Your task to perform on an android device: change timer sound Image 0: 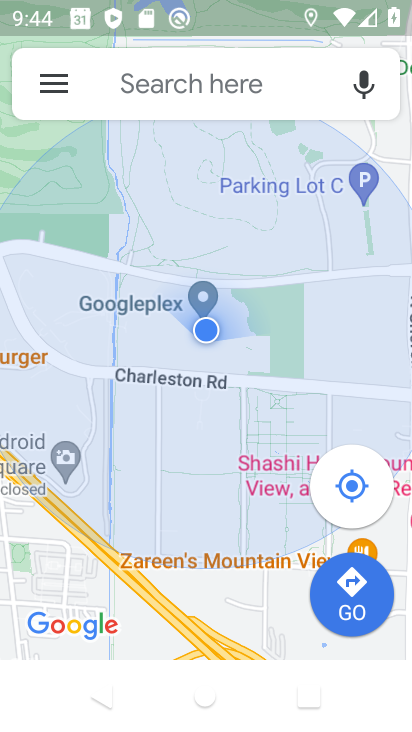
Step 0: press home button
Your task to perform on an android device: change timer sound Image 1: 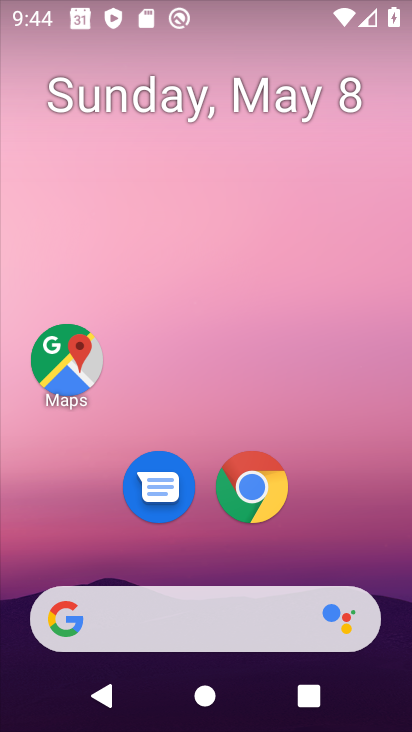
Step 1: drag from (363, 528) to (380, 132)
Your task to perform on an android device: change timer sound Image 2: 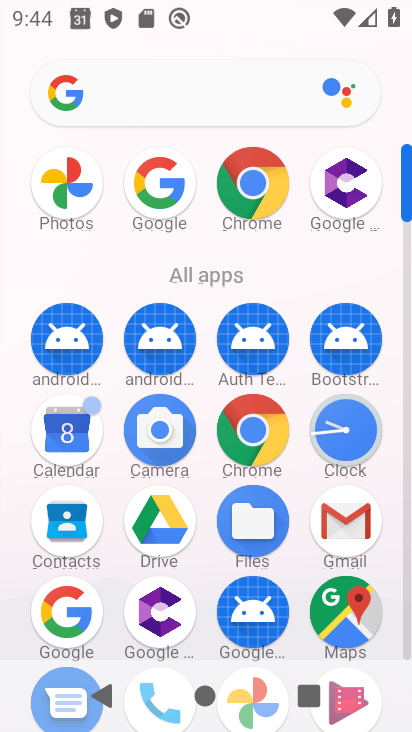
Step 2: click (349, 422)
Your task to perform on an android device: change timer sound Image 3: 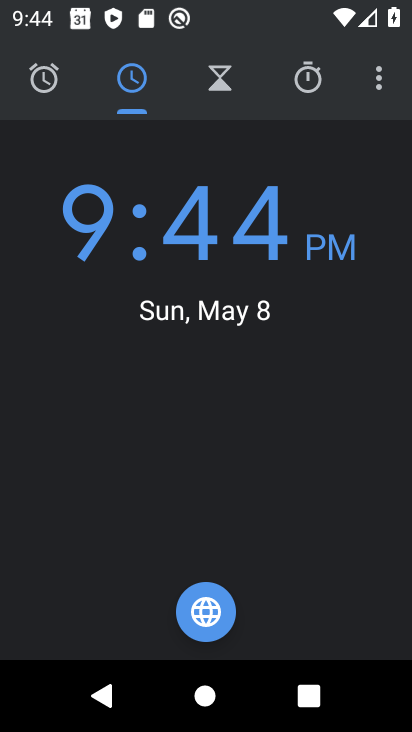
Step 3: click (365, 99)
Your task to perform on an android device: change timer sound Image 4: 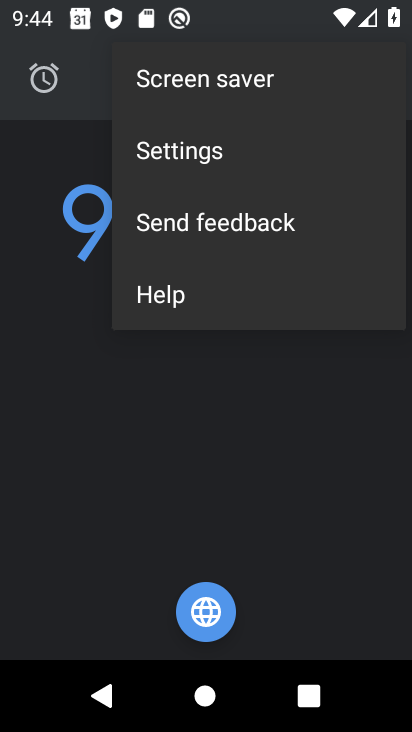
Step 4: click (182, 151)
Your task to perform on an android device: change timer sound Image 5: 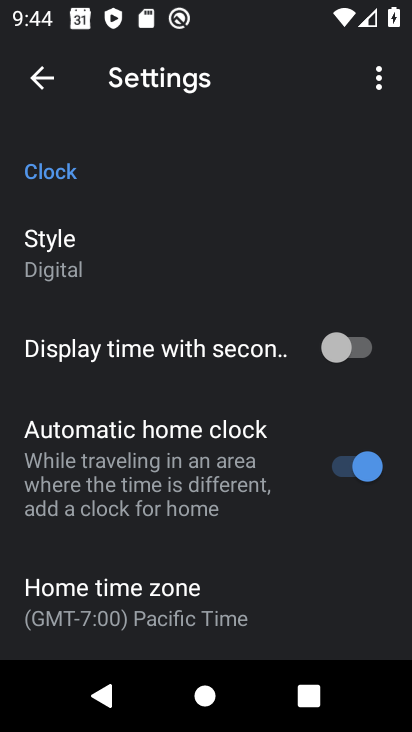
Step 5: drag from (183, 514) to (259, 200)
Your task to perform on an android device: change timer sound Image 6: 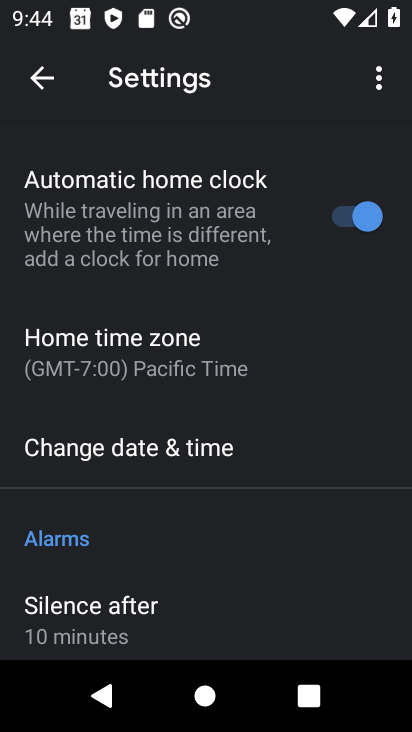
Step 6: drag from (135, 543) to (189, 213)
Your task to perform on an android device: change timer sound Image 7: 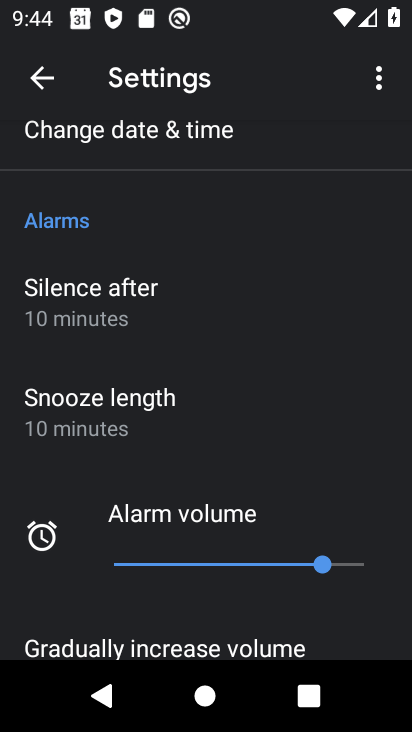
Step 7: drag from (123, 548) to (180, 263)
Your task to perform on an android device: change timer sound Image 8: 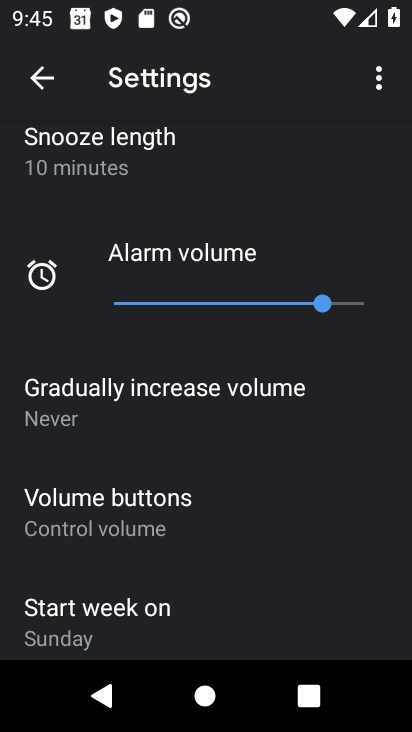
Step 8: drag from (147, 622) to (230, 238)
Your task to perform on an android device: change timer sound Image 9: 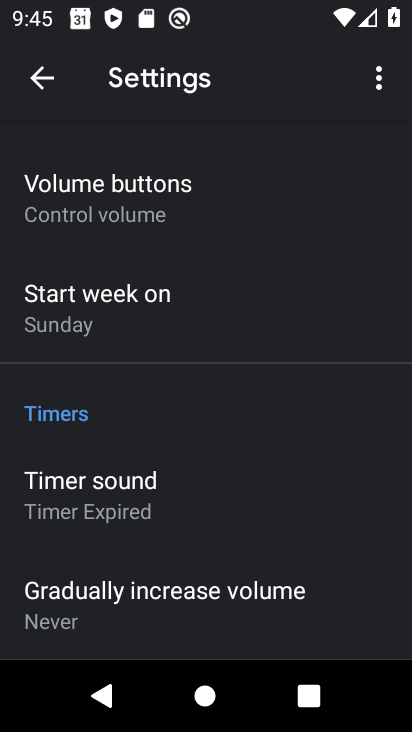
Step 9: click (121, 515)
Your task to perform on an android device: change timer sound Image 10: 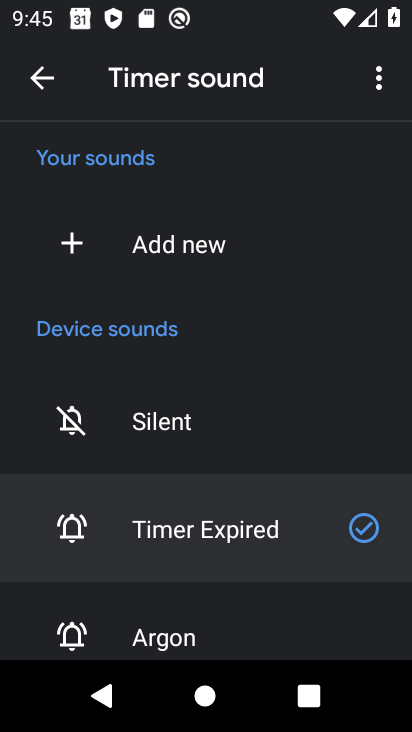
Step 10: click (154, 456)
Your task to perform on an android device: change timer sound Image 11: 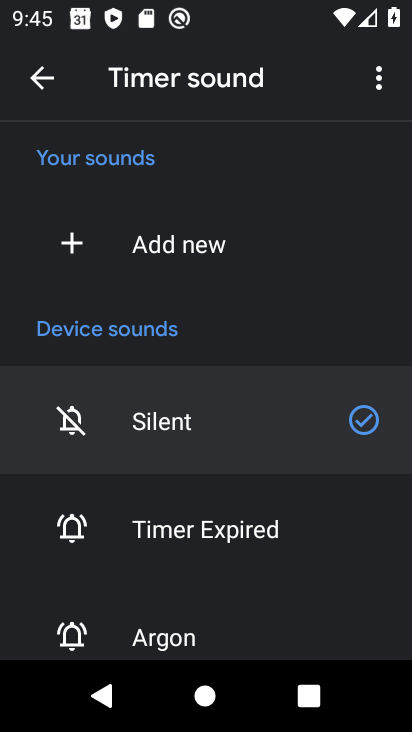
Step 11: task complete